Your task to perform on an android device: turn on the 12-hour format for clock Image 0: 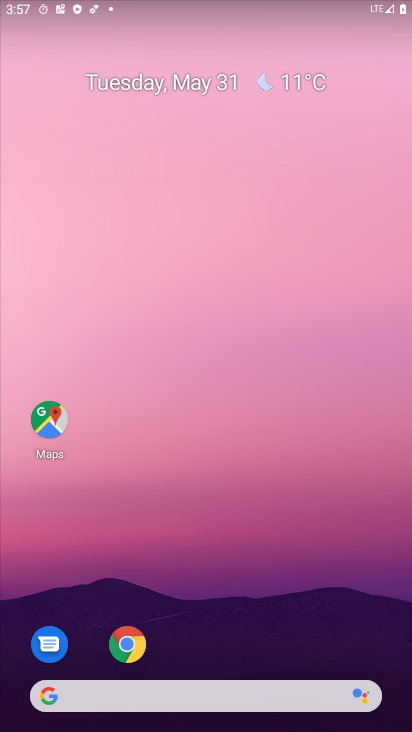
Step 0: drag from (228, 640) to (230, 274)
Your task to perform on an android device: turn on the 12-hour format for clock Image 1: 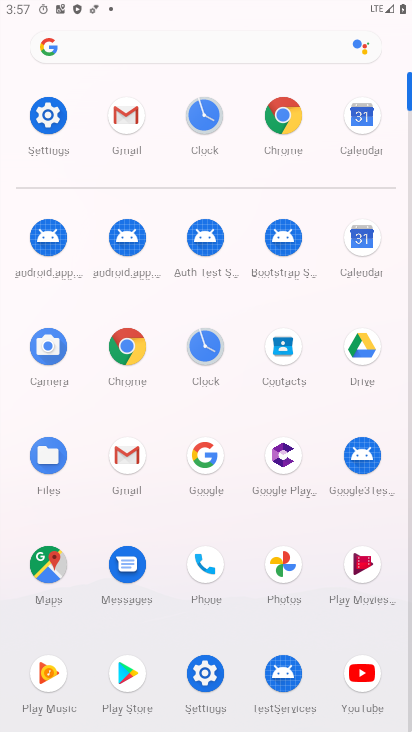
Step 1: click (206, 115)
Your task to perform on an android device: turn on the 12-hour format for clock Image 2: 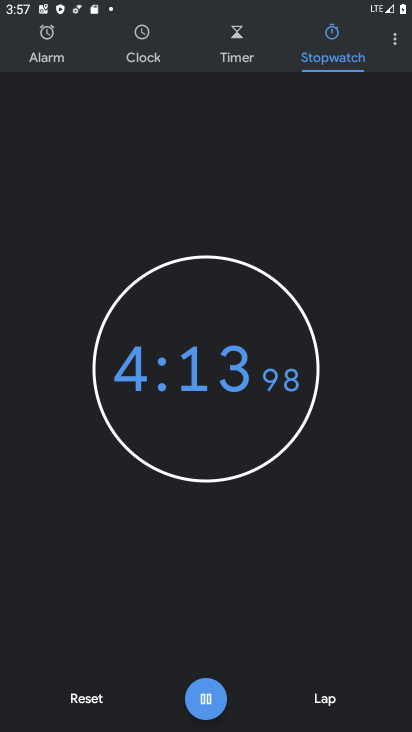
Step 2: click (398, 37)
Your task to perform on an android device: turn on the 12-hour format for clock Image 3: 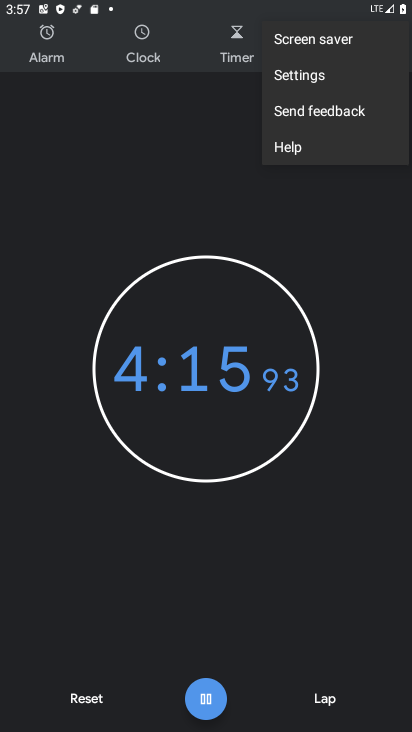
Step 3: click (327, 76)
Your task to perform on an android device: turn on the 12-hour format for clock Image 4: 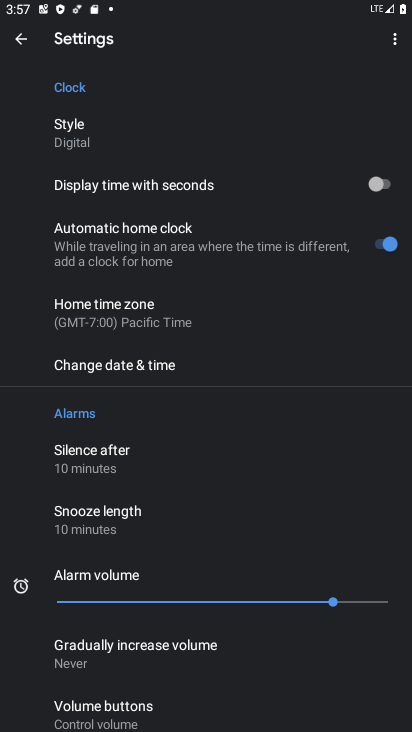
Step 4: click (166, 363)
Your task to perform on an android device: turn on the 12-hour format for clock Image 5: 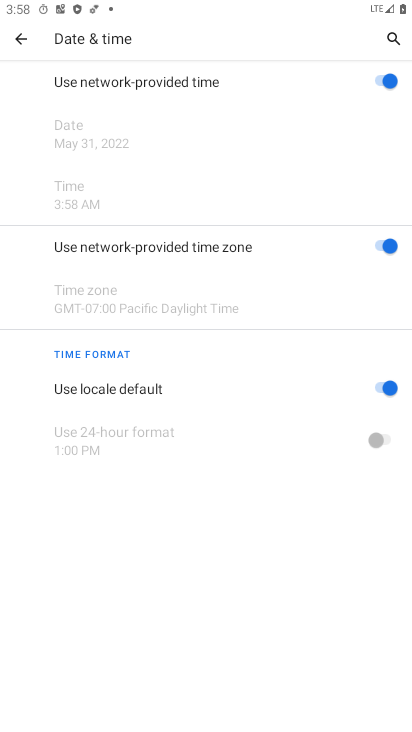
Step 5: task complete